Your task to perform on an android device: turn notification dots on Image 0: 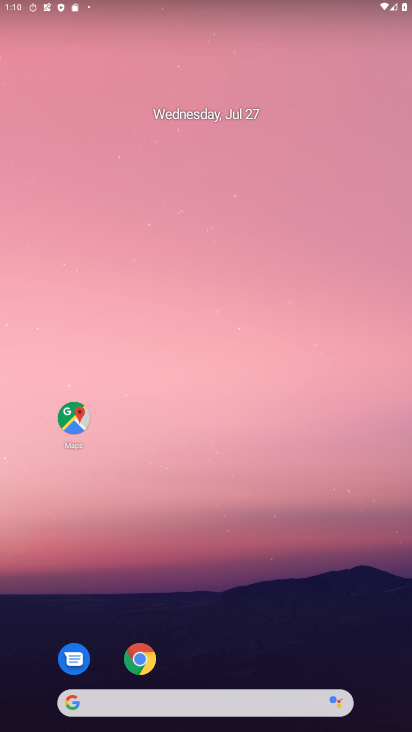
Step 0: press home button
Your task to perform on an android device: turn notification dots on Image 1: 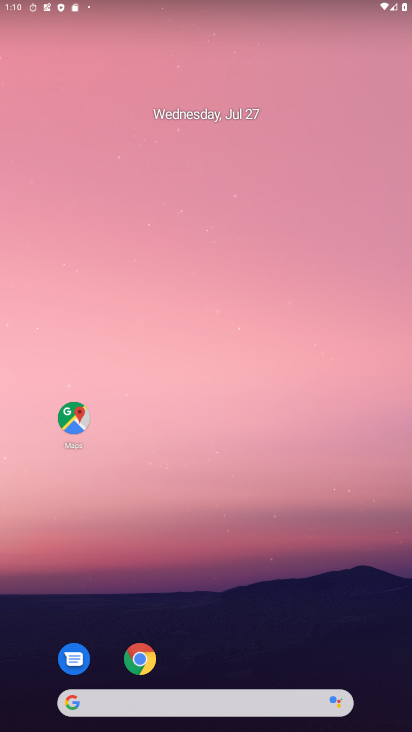
Step 1: drag from (211, 663) to (210, 10)
Your task to perform on an android device: turn notification dots on Image 2: 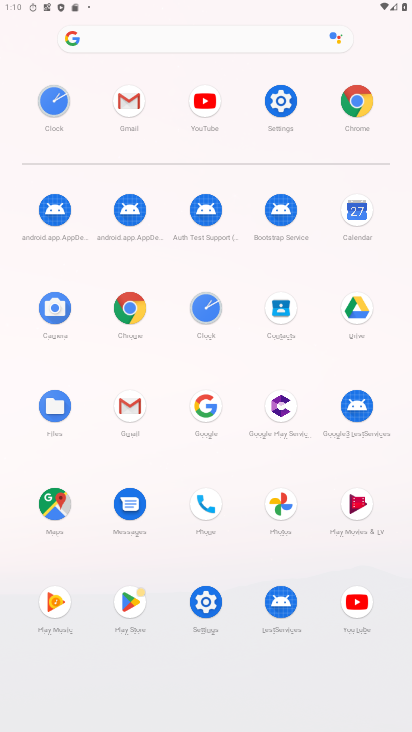
Step 2: click (276, 100)
Your task to perform on an android device: turn notification dots on Image 3: 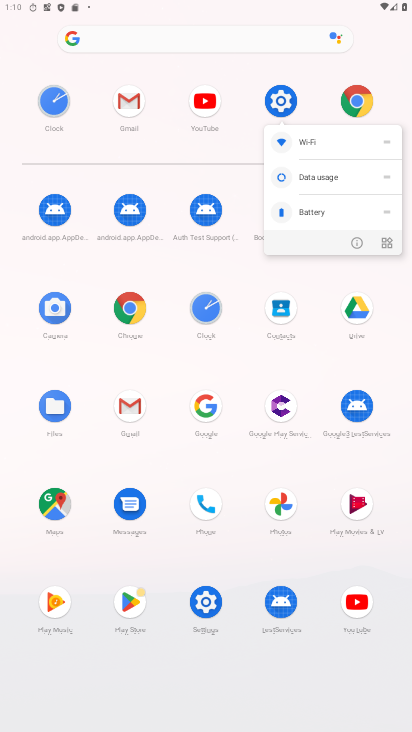
Step 3: click (278, 96)
Your task to perform on an android device: turn notification dots on Image 4: 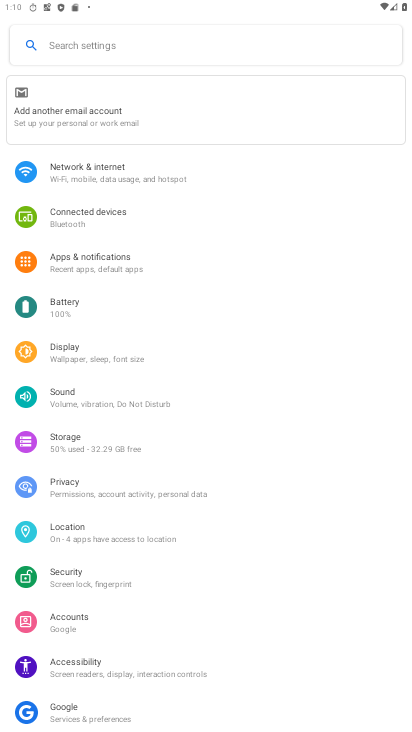
Step 4: click (148, 258)
Your task to perform on an android device: turn notification dots on Image 5: 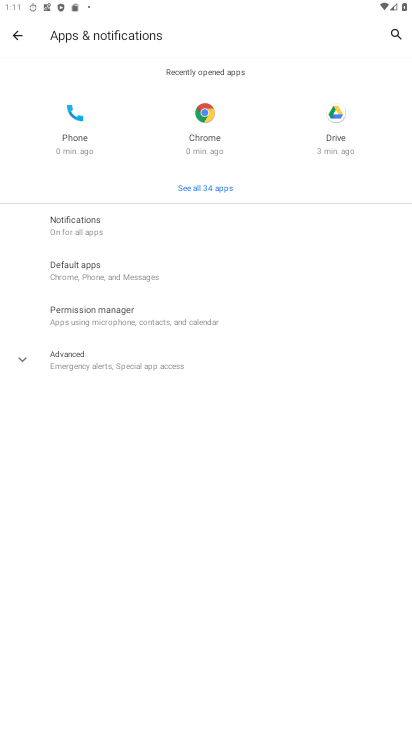
Step 5: click (118, 226)
Your task to perform on an android device: turn notification dots on Image 6: 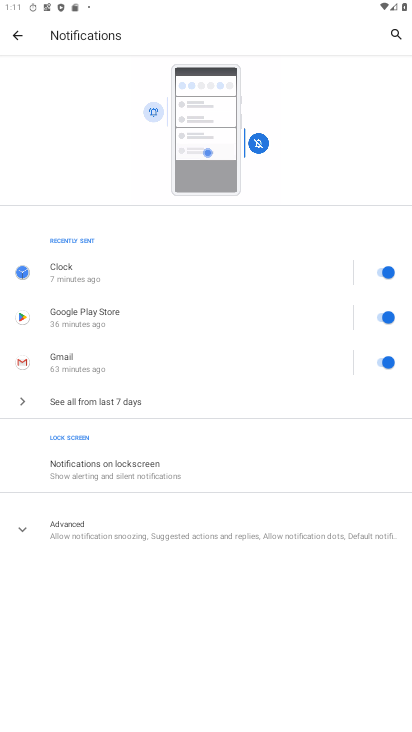
Step 6: click (21, 524)
Your task to perform on an android device: turn notification dots on Image 7: 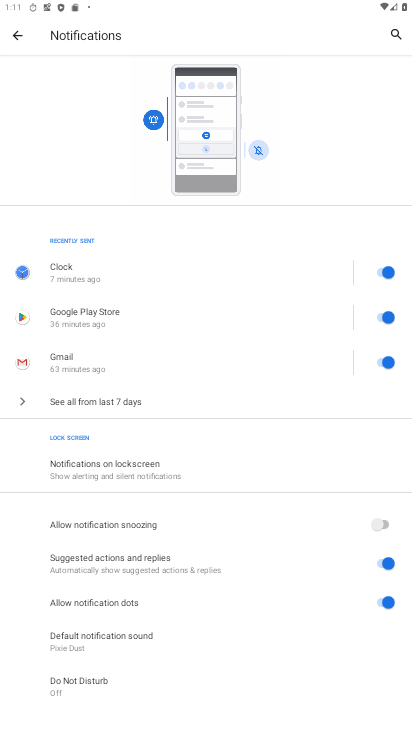
Step 7: task complete